Your task to perform on an android device: turn on translation in the chrome app Image 0: 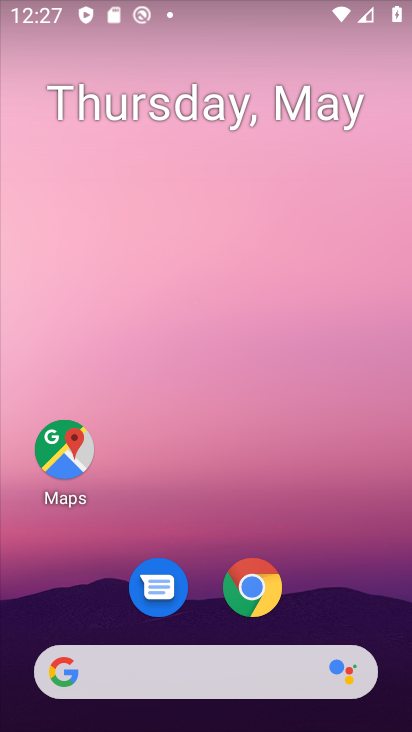
Step 0: drag from (311, 678) to (338, 79)
Your task to perform on an android device: turn on translation in the chrome app Image 1: 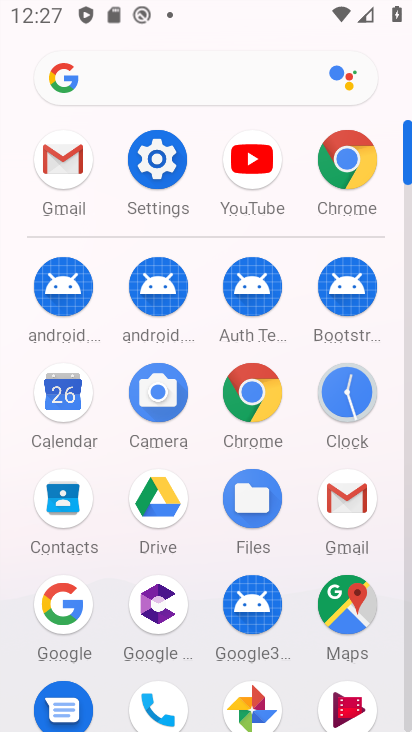
Step 1: click (339, 162)
Your task to perform on an android device: turn on translation in the chrome app Image 2: 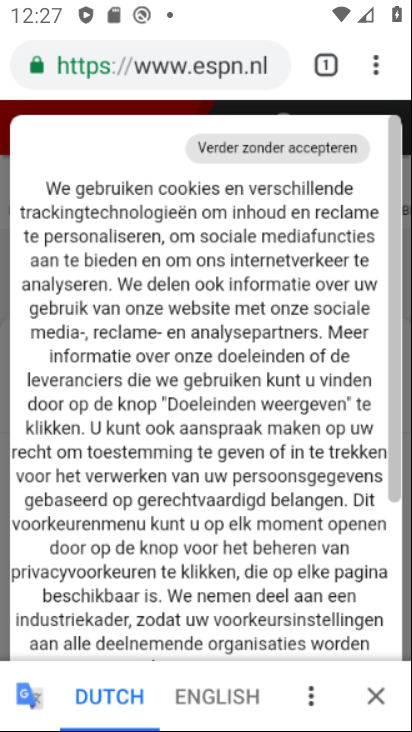
Step 2: drag from (367, 82) to (177, 627)
Your task to perform on an android device: turn on translation in the chrome app Image 3: 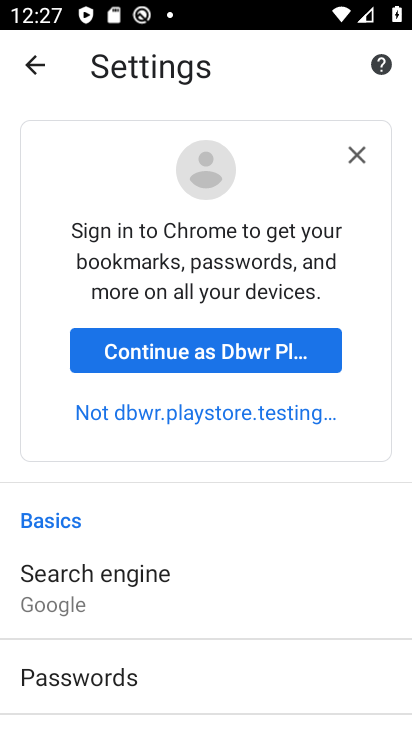
Step 3: press home button
Your task to perform on an android device: turn on translation in the chrome app Image 4: 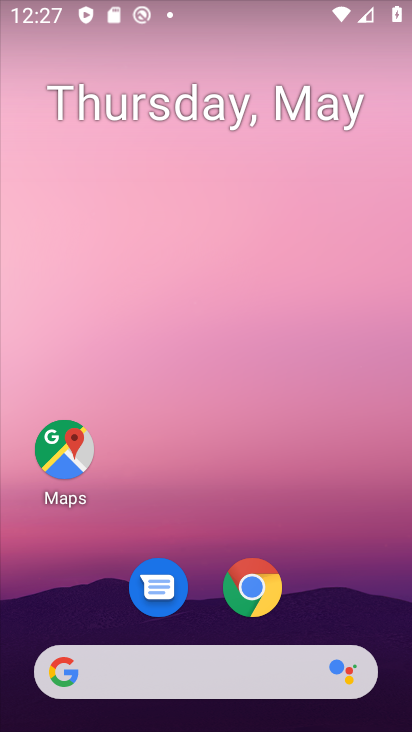
Step 4: drag from (344, 650) to (411, 100)
Your task to perform on an android device: turn on translation in the chrome app Image 5: 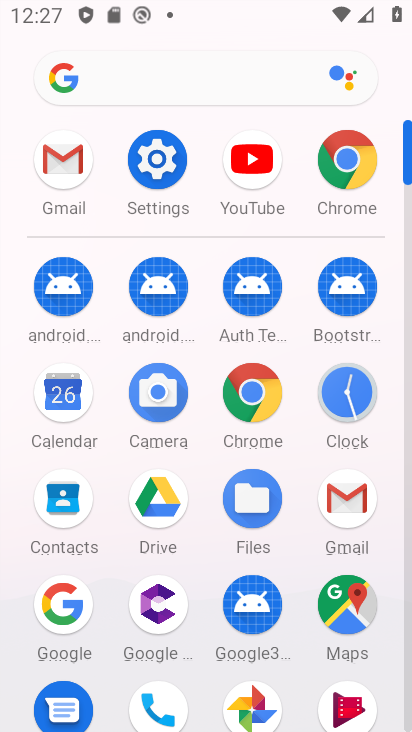
Step 5: click (261, 409)
Your task to perform on an android device: turn on translation in the chrome app Image 6: 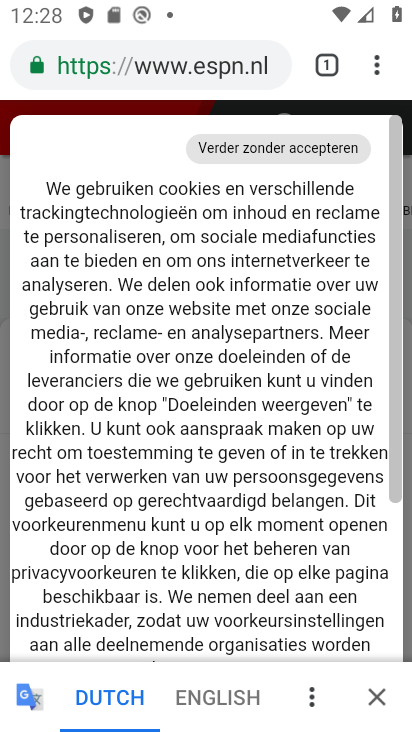
Step 6: drag from (390, 69) to (138, 626)
Your task to perform on an android device: turn on translation in the chrome app Image 7: 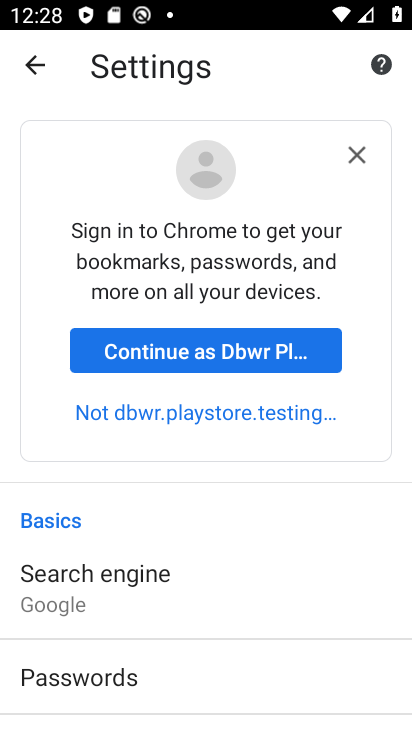
Step 7: drag from (279, 679) to (296, 122)
Your task to perform on an android device: turn on translation in the chrome app Image 8: 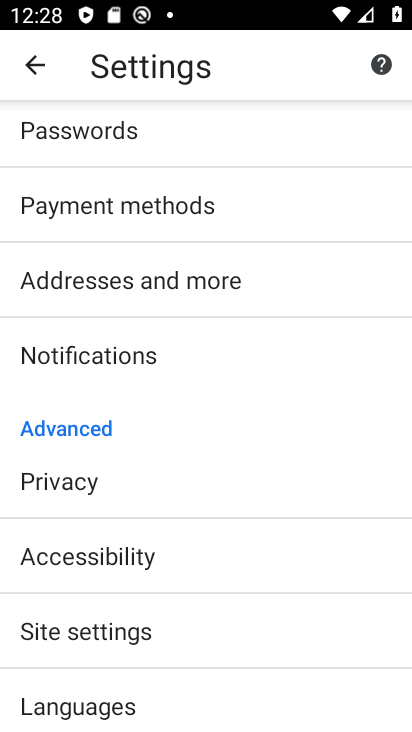
Step 8: click (161, 701)
Your task to perform on an android device: turn on translation in the chrome app Image 9: 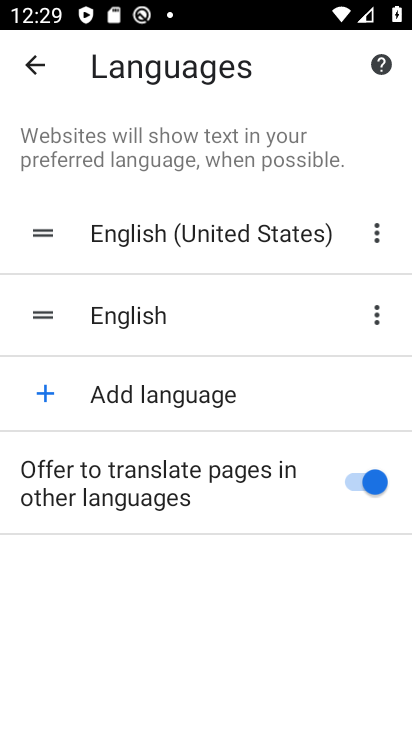
Step 9: task complete